Your task to perform on an android device: empty trash in google photos Image 0: 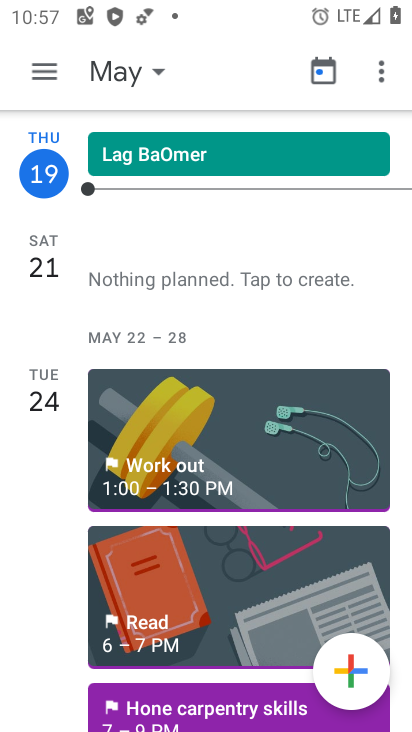
Step 0: press home button
Your task to perform on an android device: empty trash in google photos Image 1: 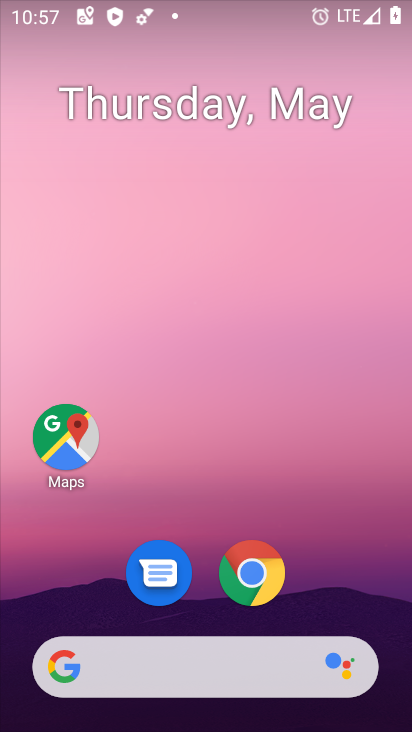
Step 1: drag from (206, 606) to (205, 230)
Your task to perform on an android device: empty trash in google photos Image 2: 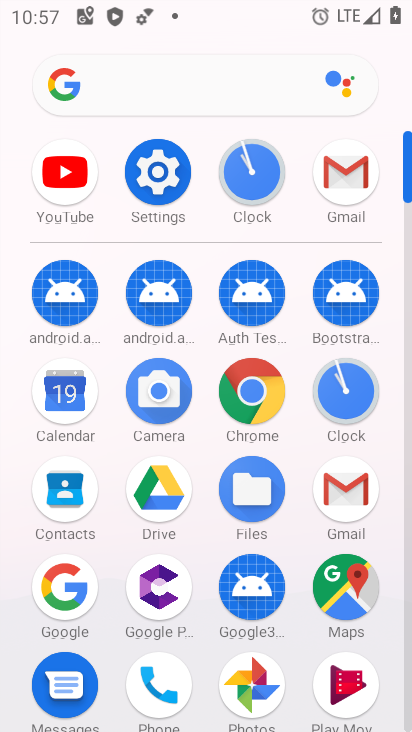
Step 2: click (241, 663)
Your task to perform on an android device: empty trash in google photos Image 3: 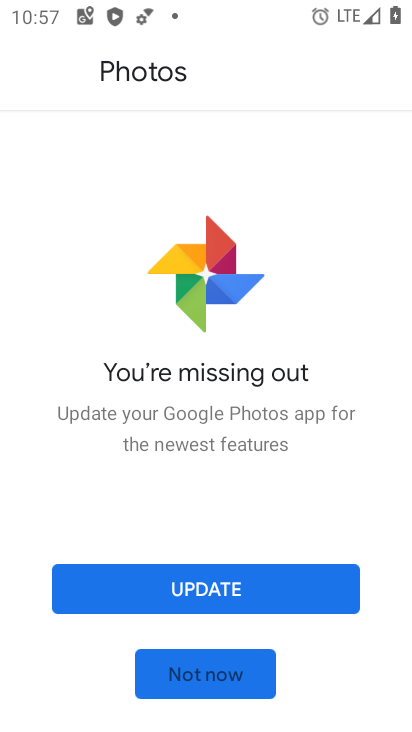
Step 3: click (244, 660)
Your task to perform on an android device: empty trash in google photos Image 4: 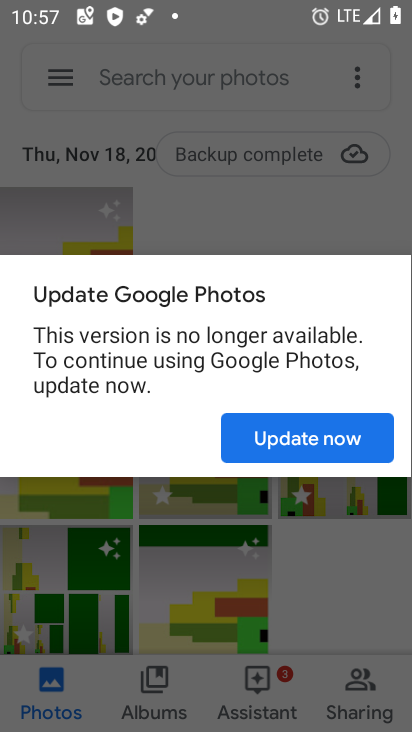
Step 4: click (301, 446)
Your task to perform on an android device: empty trash in google photos Image 5: 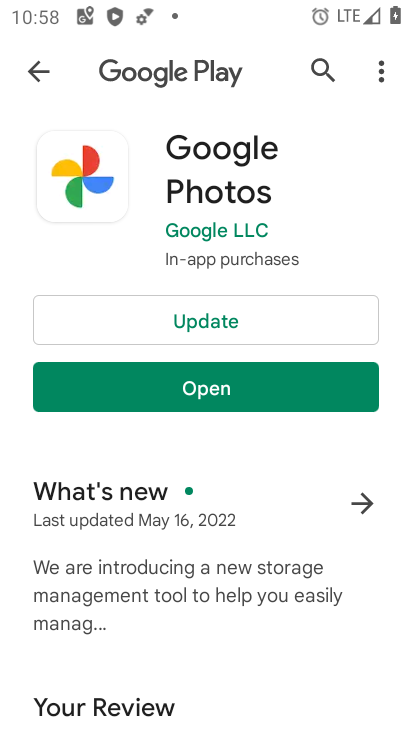
Step 5: click (226, 376)
Your task to perform on an android device: empty trash in google photos Image 6: 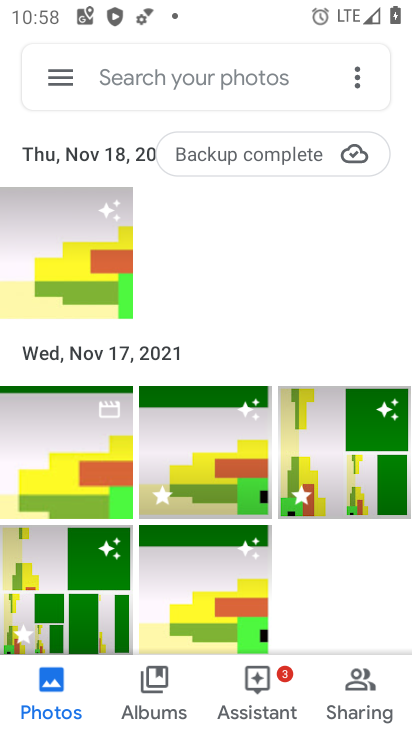
Step 6: click (42, 88)
Your task to perform on an android device: empty trash in google photos Image 7: 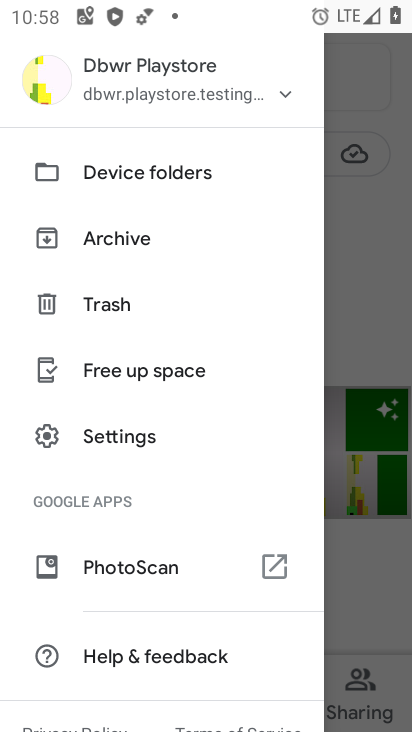
Step 7: click (112, 318)
Your task to perform on an android device: empty trash in google photos Image 8: 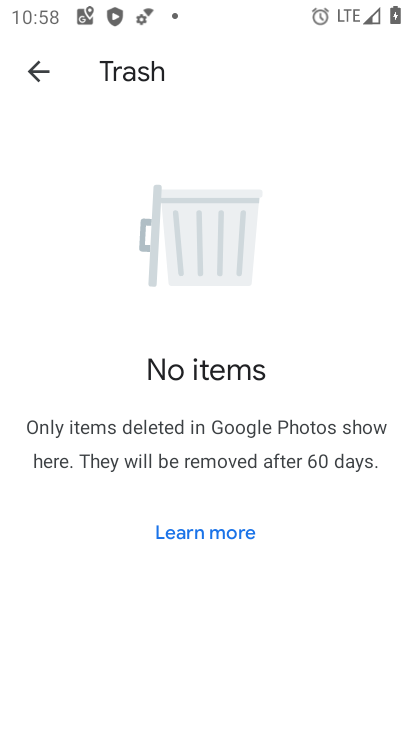
Step 8: task complete